Your task to perform on an android device: toggle notifications settings in the gmail app Image 0: 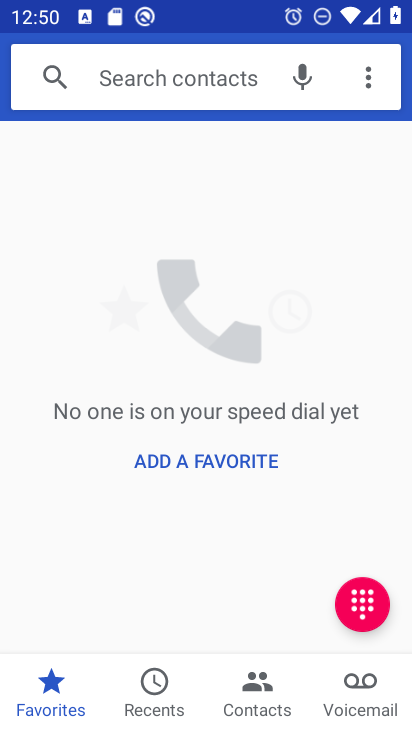
Step 0: press home button
Your task to perform on an android device: toggle notifications settings in the gmail app Image 1: 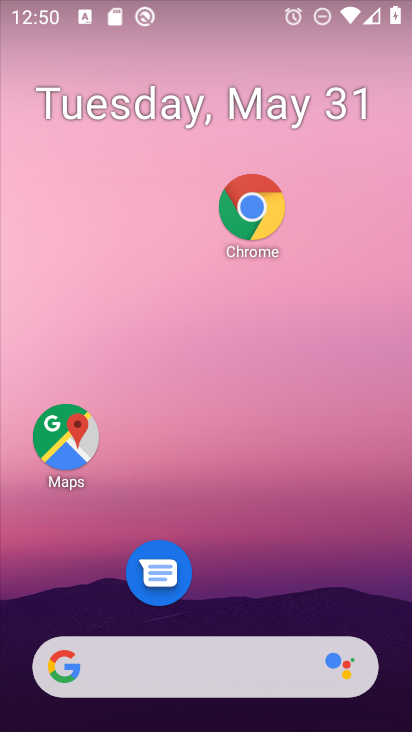
Step 1: drag from (253, 580) to (245, 179)
Your task to perform on an android device: toggle notifications settings in the gmail app Image 2: 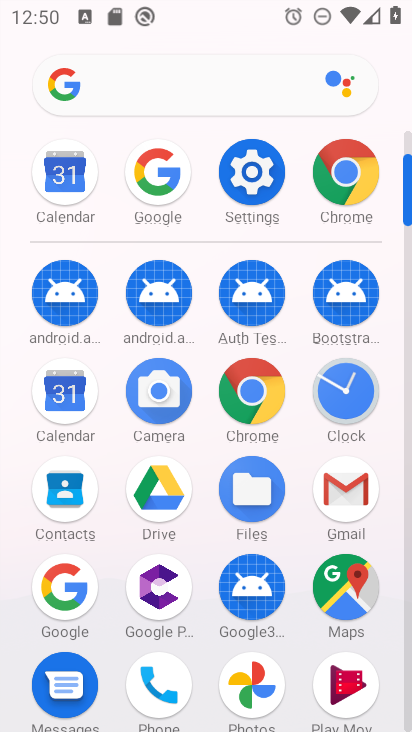
Step 2: click (350, 496)
Your task to perform on an android device: toggle notifications settings in the gmail app Image 3: 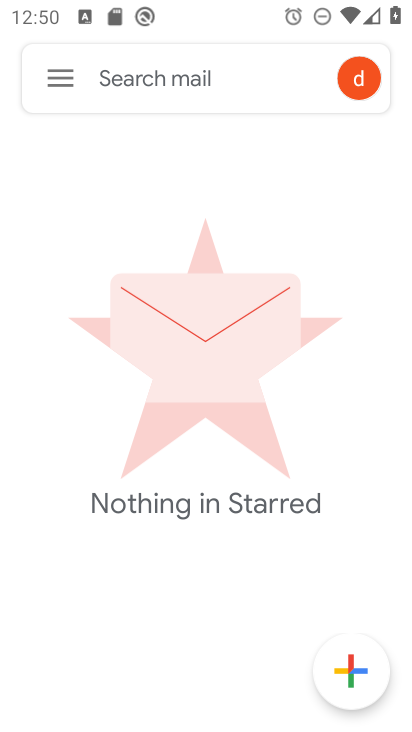
Step 3: click (58, 86)
Your task to perform on an android device: toggle notifications settings in the gmail app Image 4: 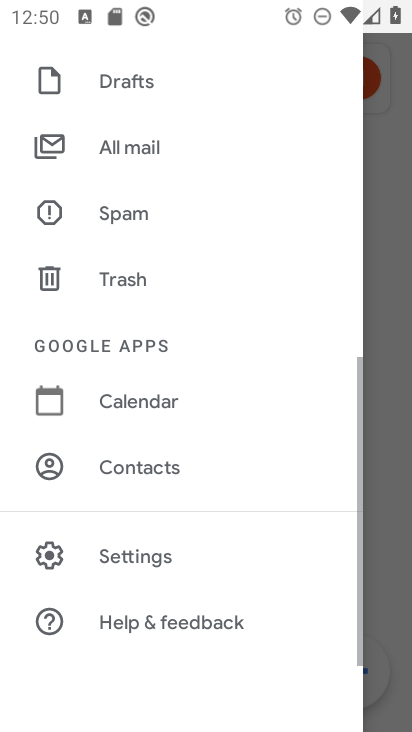
Step 4: click (161, 571)
Your task to perform on an android device: toggle notifications settings in the gmail app Image 5: 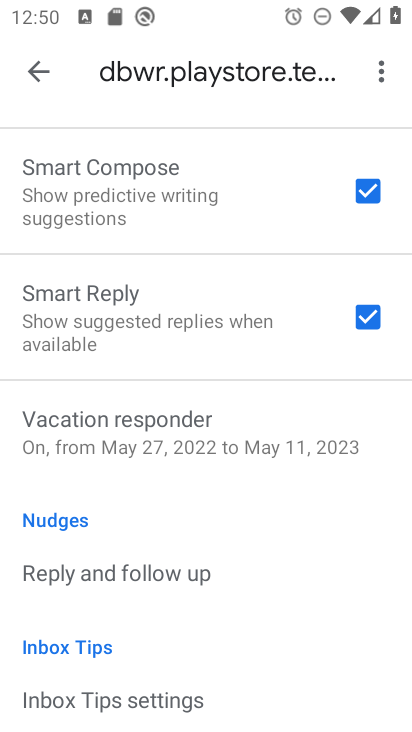
Step 5: click (36, 77)
Your task to perform on an android device: toggle notifications settings in the gmail app Image 6: 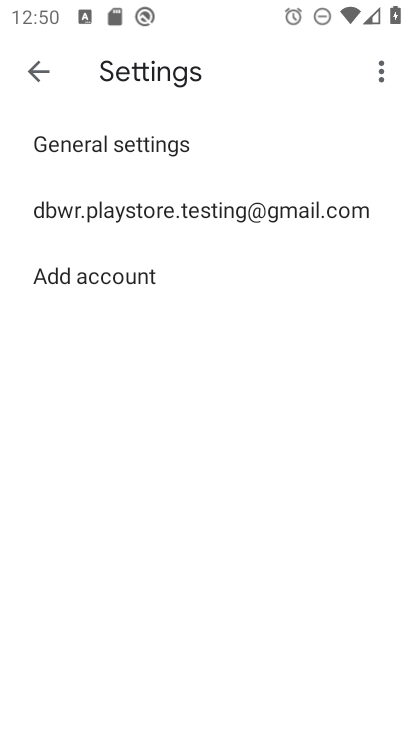
Step 6: click (112, 155)
Your task to perform on an android device: toggle notifications settings in the gmail app Image 7: 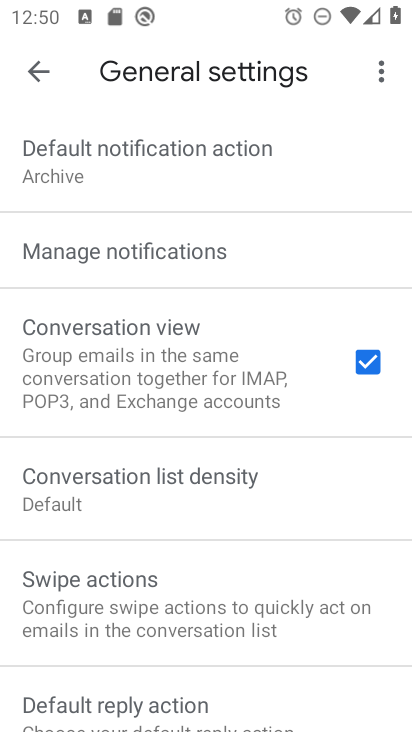
Step 7: click (147, 243)
Your task to perform on an android device: toggle notifications settings in the gmail app Image 8: 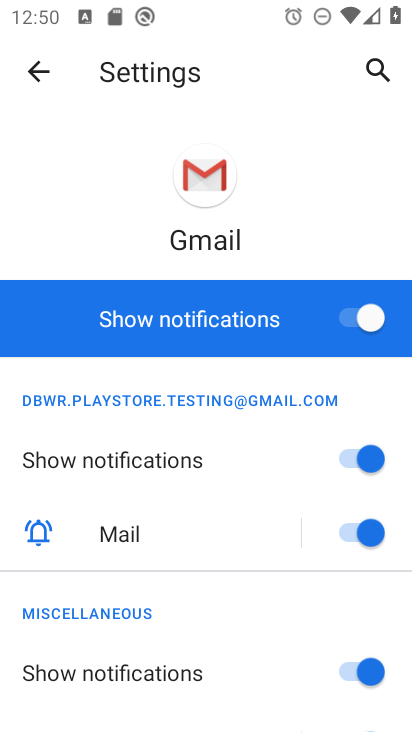
Step 8: click (328, 322)
Your task to perform on an android device: toggle notifications settings in the gmail app Image 9: 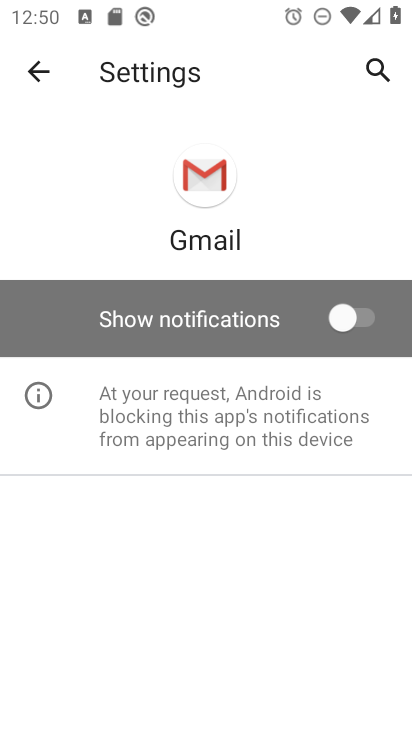
Step 9: task complete